Your task to perform on an android device: Open Chrome and go to settings Image 0: 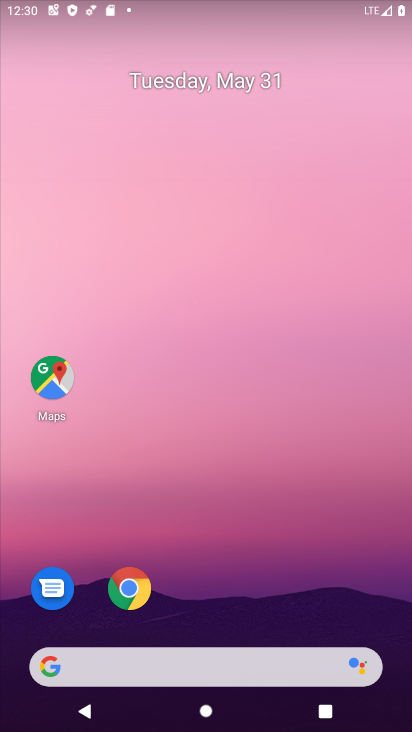
Step 0: drag from (216, 617) to (250, 90)
Your task to perform on an android device: Open Chrome and go to settings Image 1: 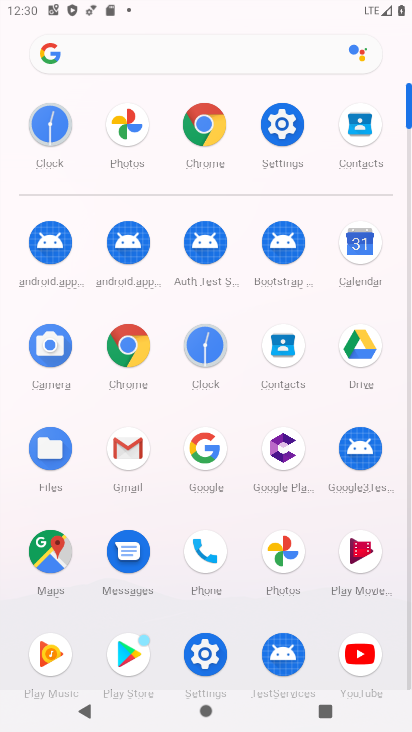
Step 1: click (204, 126)
Your task to perform on an android device: Open Chrome and go to settings Image 2: 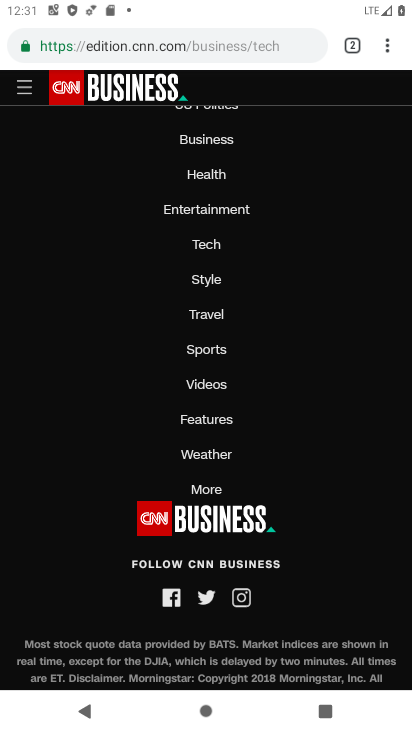
Step 2: click (390, 55)
Your task to perform on an android device: Open Chrome and go to settings Image 3: 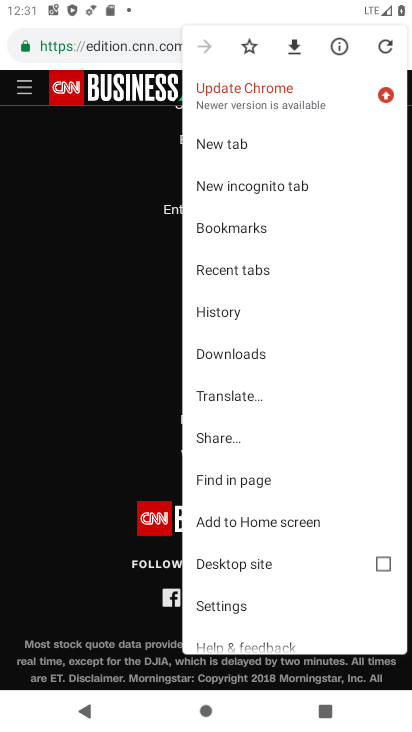
Step 3: click (263, 603)
Your task to perform on an android device: Open Chrome and go to settings Image 4: 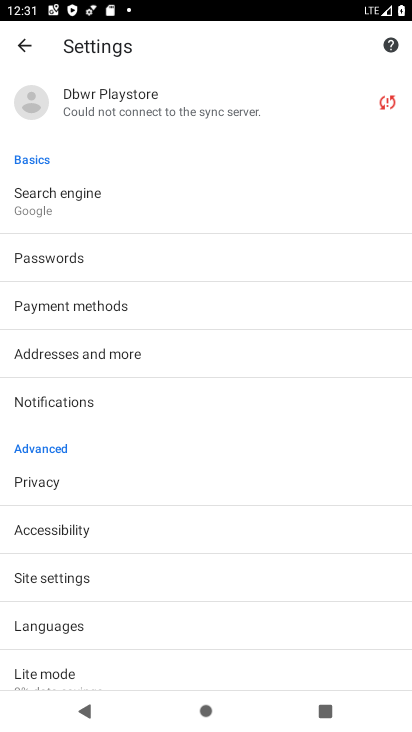
Step 4: task complete